Your task to perform on an android device: change the clock display to analog Image 0: 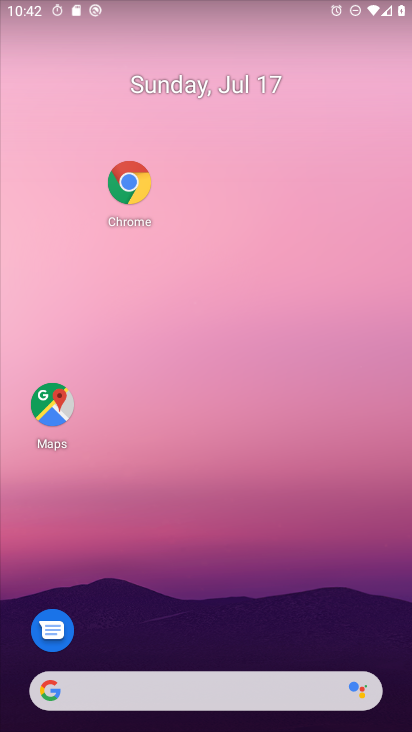
Step 0: drag from (404, 324) to (405, 628)
Your task to perform on an android device: change the clock display to analog Image 1: 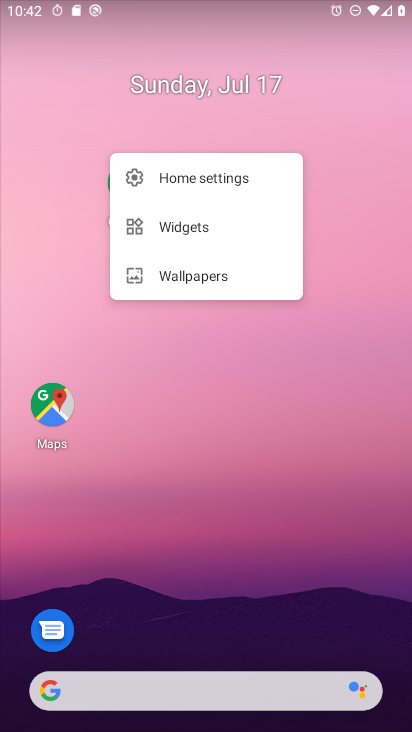
Step 1: click (142, 591)
Your task to perform on an android device: change the clock display to analog Image 2: 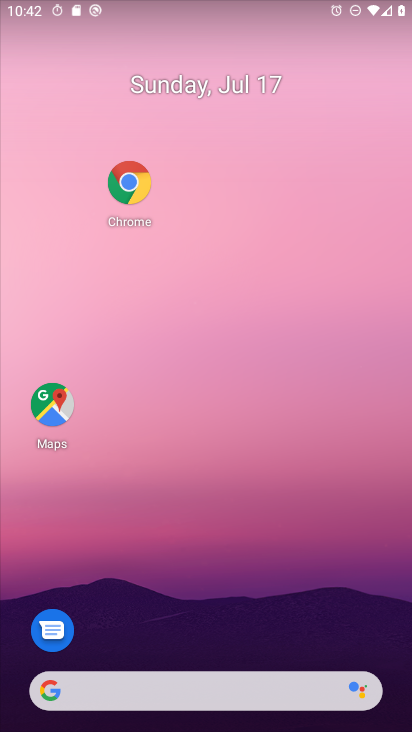
Step 2: drag from (225, 626) to (220, 138)
Your task to perform on an android device: change the clock display to analog Image 3: 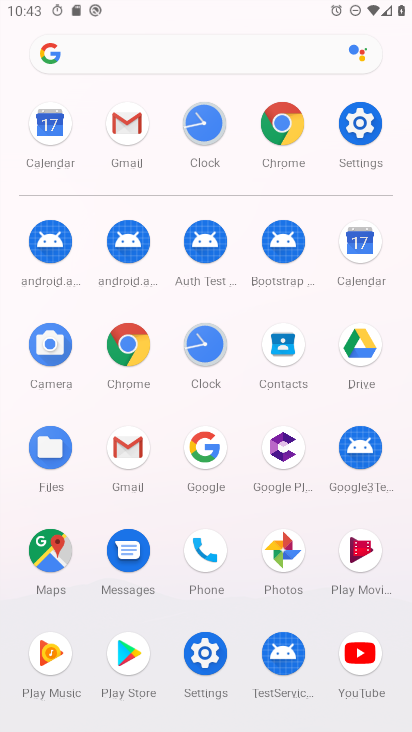
Step 3: click (211, 340)
Your task to perform on an android device: change the clock display to analog Image 4: 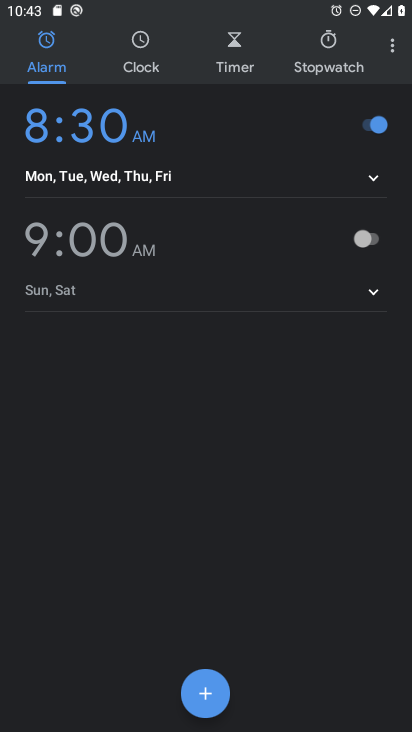
Step 4: click (395, 44)
Your task to perform on an android device: change the clock display to analog Image 5: 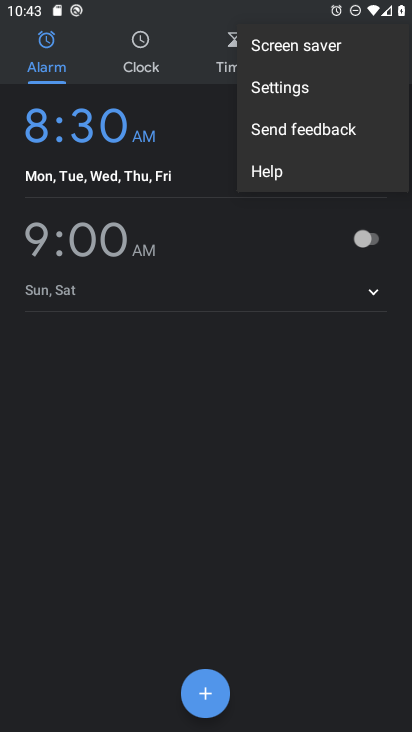
Step 5: click (275, 96)
Your task to perform on an android device: change the clock display to analog Image 6: 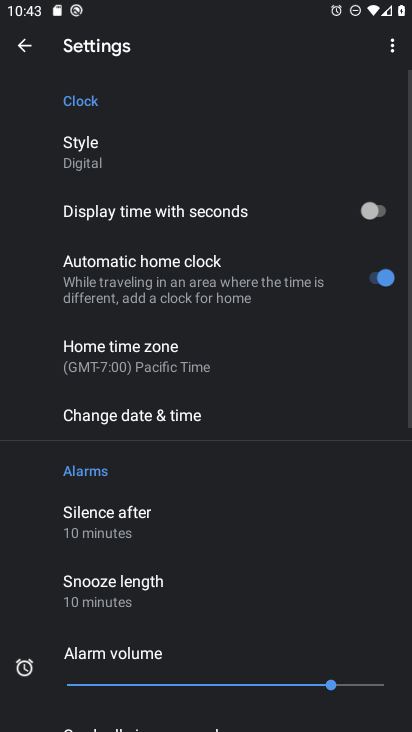
Step 6: click (137, 169)
Your task to perform on an android device: change the clock display to analog Image 7: 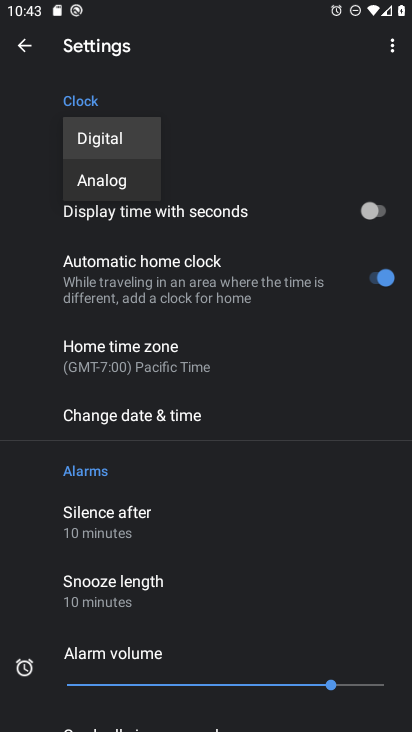
Step 7: click (132, 182)
Your task to perform on an android device: change the clock display to analog Image 8: 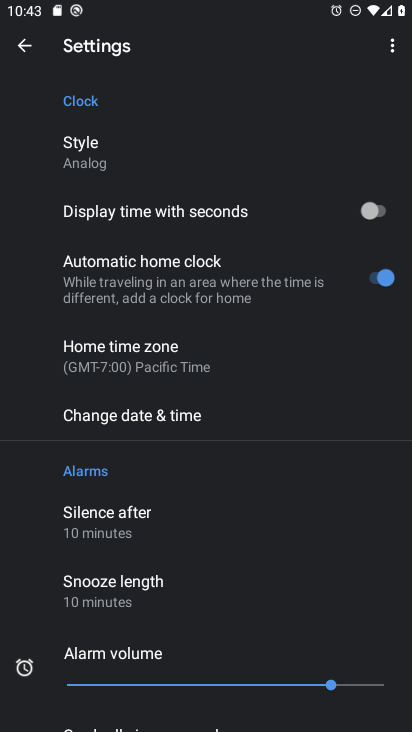
Step 8: task complete